Your task to perform on an android device: Go to ESPN.com Image 0: 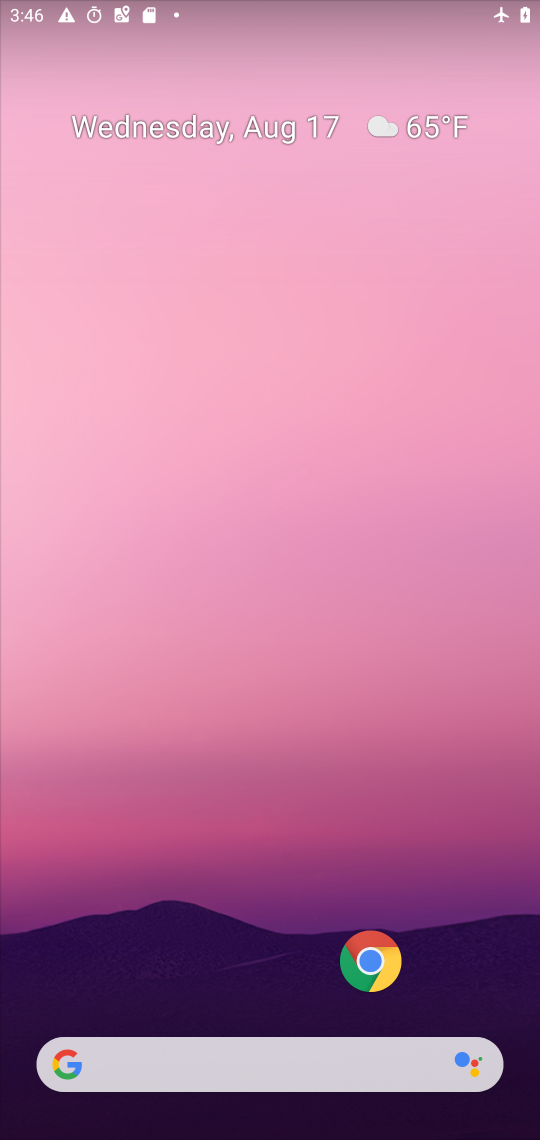
Step 0: drag from (304, 879) to (247, 192)
Your task to perform on an android device: Go to ESPN.com Image 1: 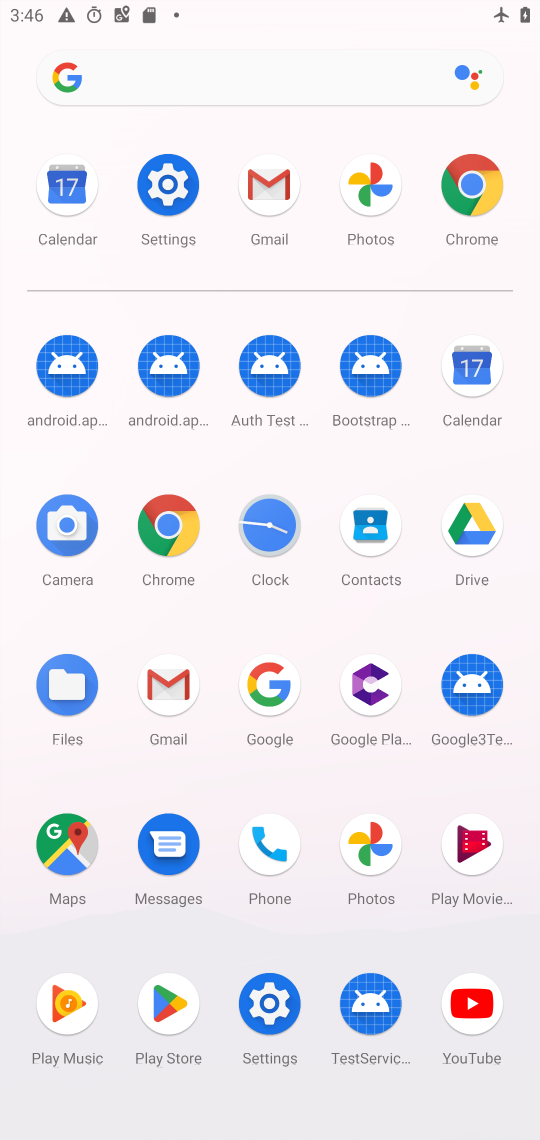
Step 1: click (469, 199)
Your task to perform on an android device: Go to ESPN.com Image 2: 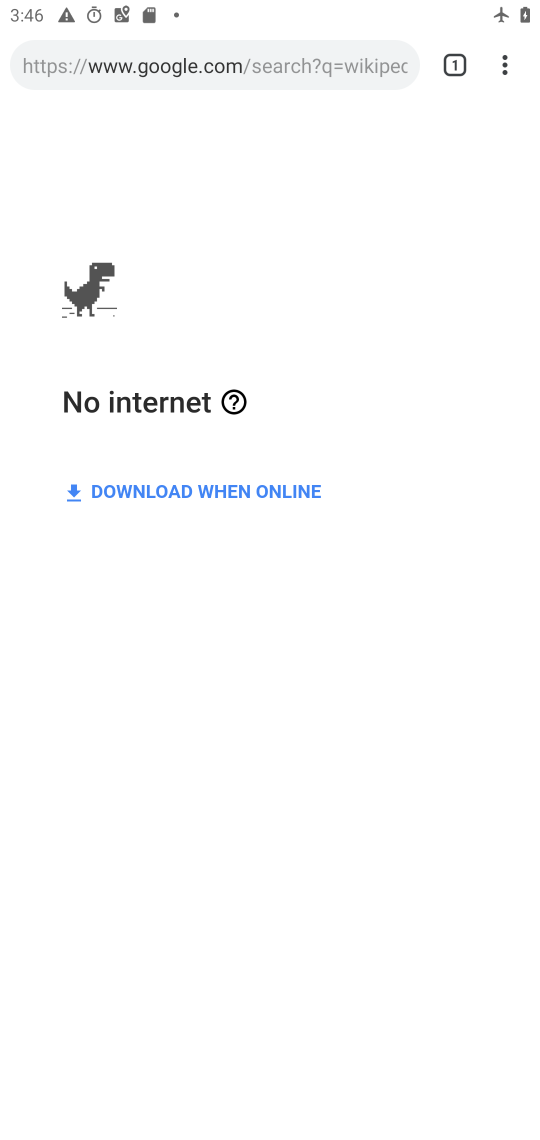
Step 2: click (336, 68)
Your task to perform on an android device: Go to ESPN.com Image 3: 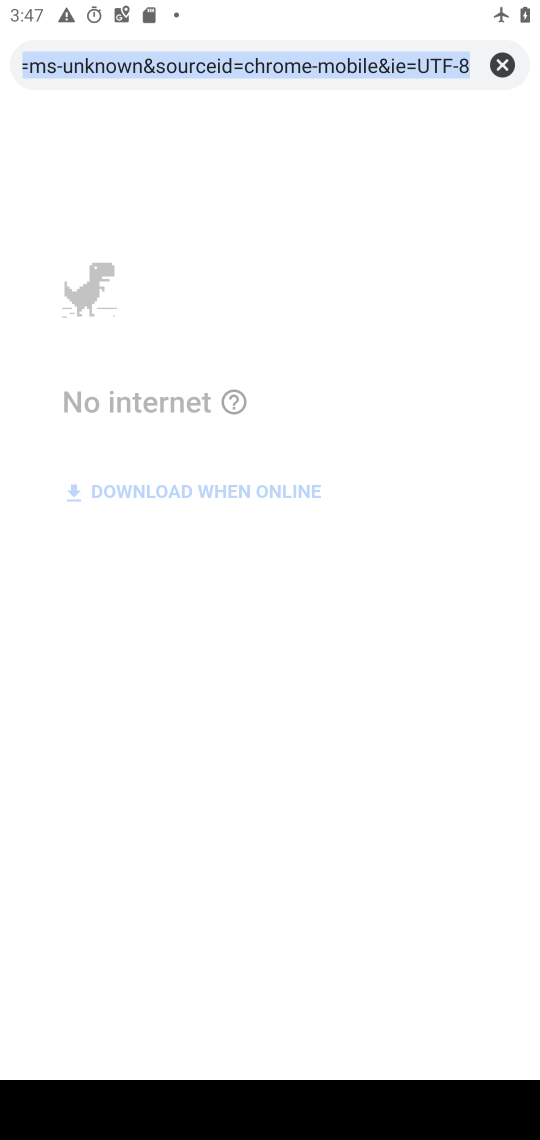
Step 3: type "espn"
Your task to perform on an android device: Go to ESPN.com Image 4: 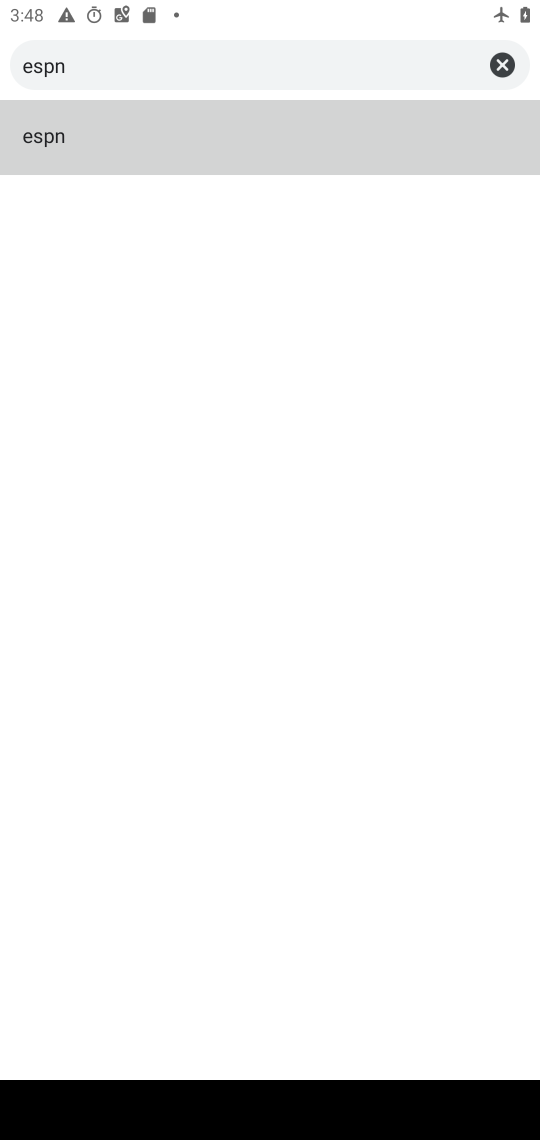
Step 4: click (220, 141)
Your task to perform on an android device: Go to ESPN.com Image 5: 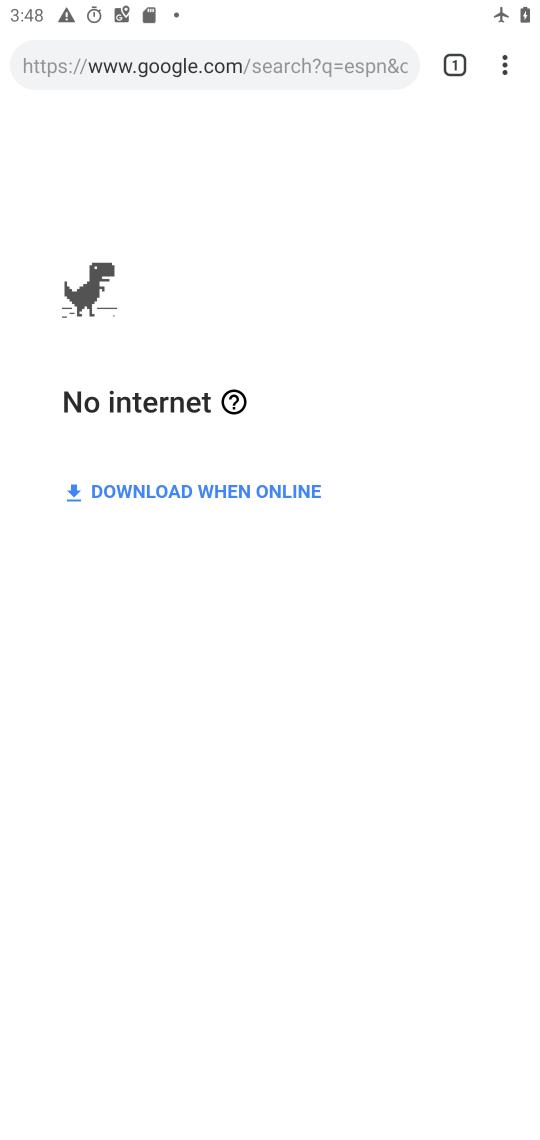
Step 5: task complete